Your task to perform on an android device: turn off picture-in-picture Image 0: 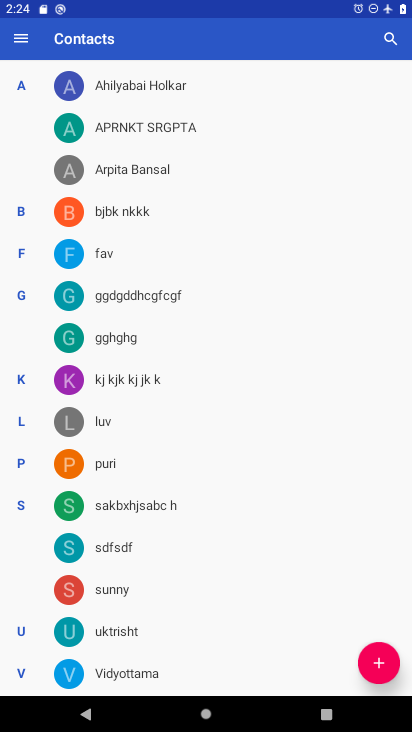
Step 0: press home button
Your task to perform on an android device: turn off picture-in-picture Image 1: 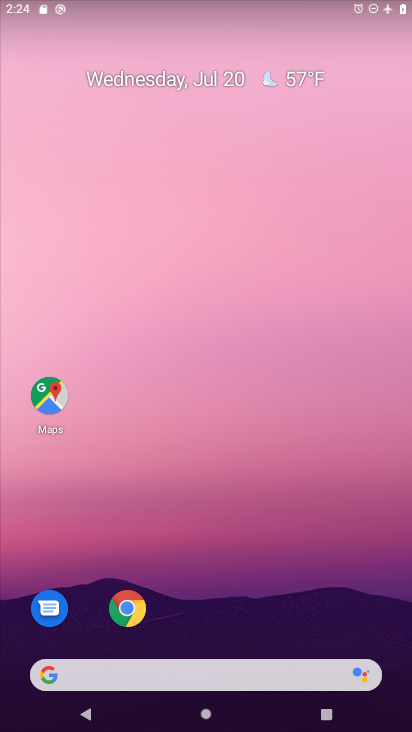
Step 1: click (134, 606)
Your task to perform on an android device: turn off picture-in-picture Image 2: 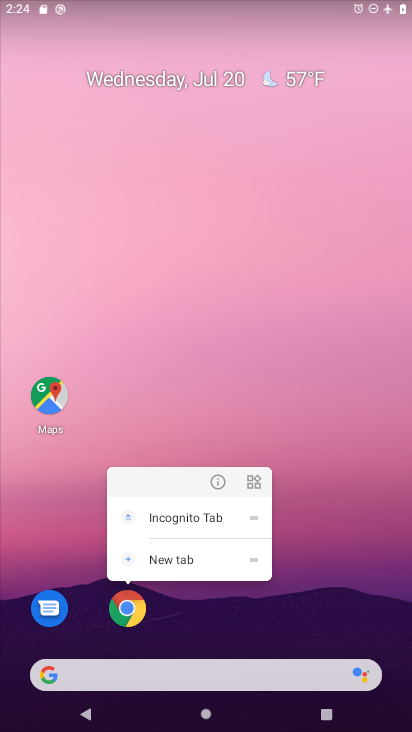
Step 2: click (223, 481)
Your task to perform on an android device: turn off picture-in-picture Image 3: 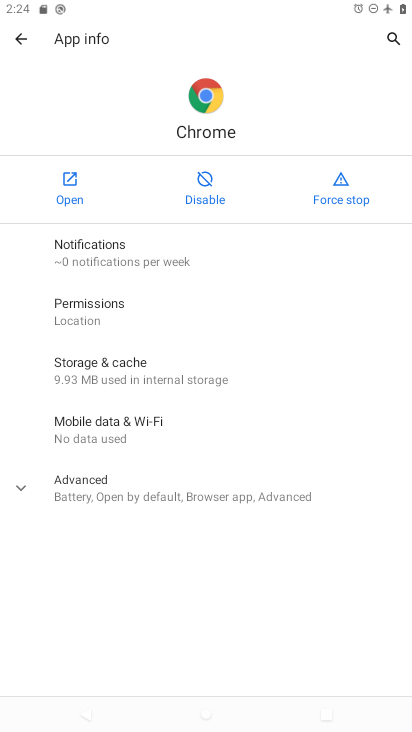
Step 3: click (223, 481)
Your task to perform on an android device: turn off picture-in-picture Image 4: 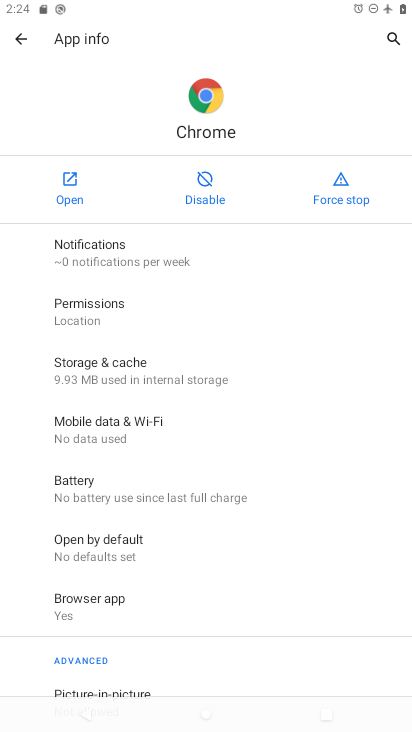
Step 4: drag from (171, 668) to (89, 383)
Your task to perform on an android device: turn off picture-in-picture Image 5: 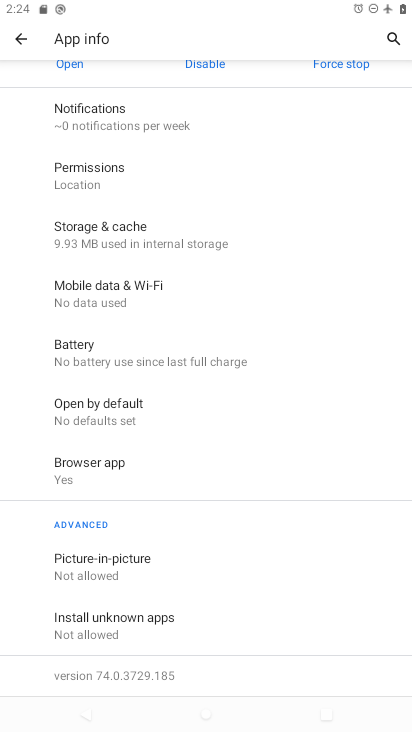
Step 5: click (132, 568)
Your task to perform on an android device: turn off picture-in-picture Image 6: 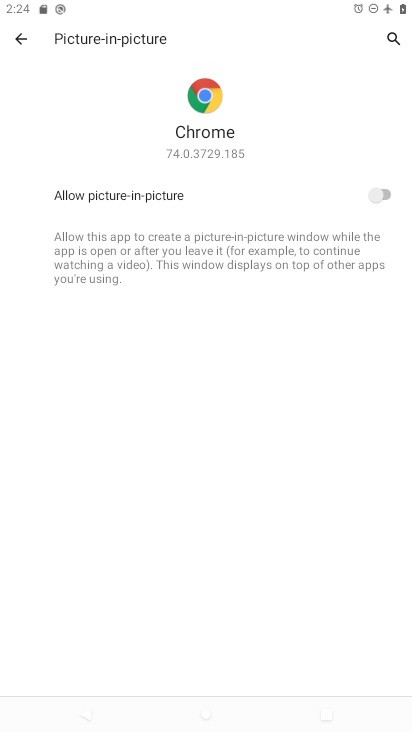
Step 6: task complete